Your task to perform on an android device: open a bookmark in the chrome app Image 0: 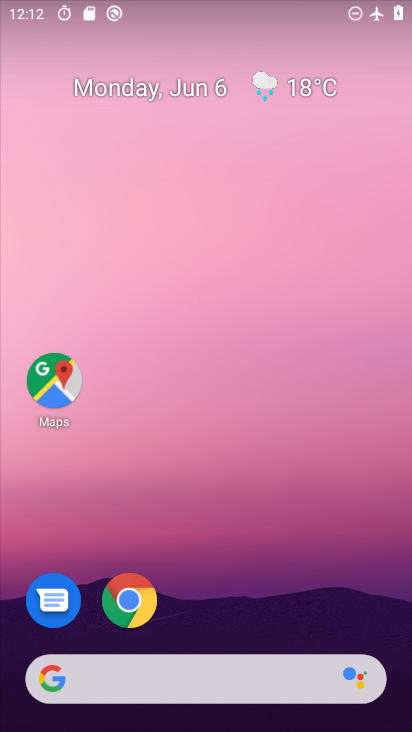
Step 0: click (129, 621)
Your task to perform on an android device: open a bookmark in the chrome app Image 1: 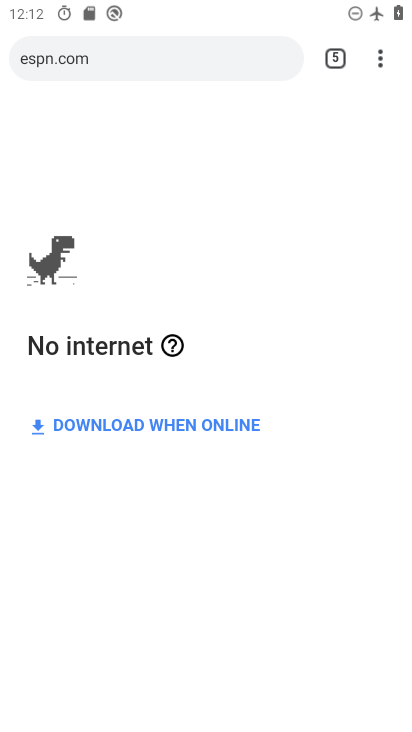
Step 1: drag from (377, 66) to (172, 214)
Your task to perform on an android device: open a bookmark in the chrome app Image 2: 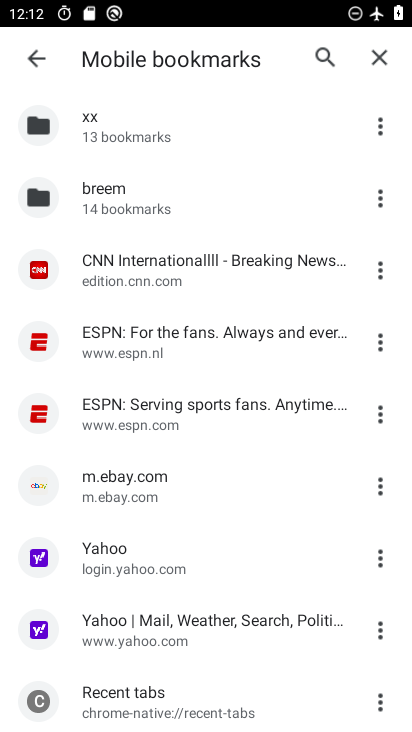
Step 2: click (171, 297)
Your task to perform on an android device: open a bookmark in the chrome app Image 3: 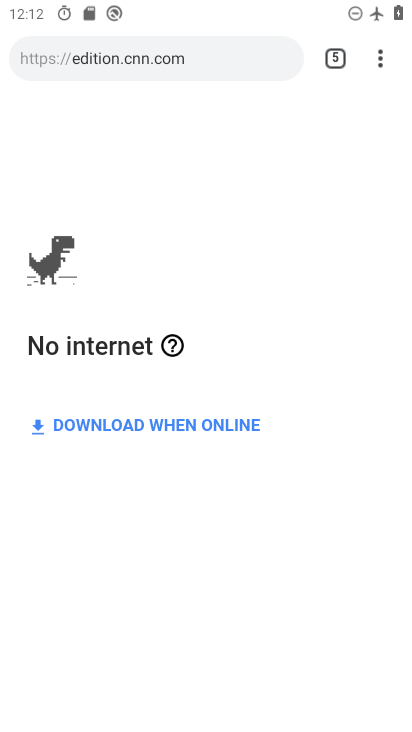
Step 3: task complete